Your task to perform on an android device: turn off translation in the chrome app Image 0: 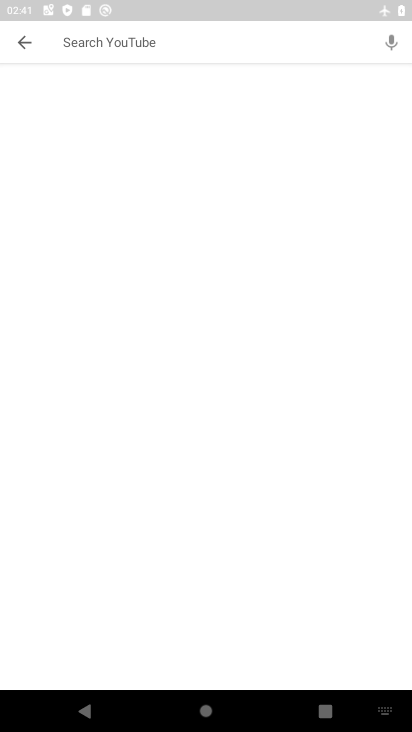
Step 0: press home button
Your task to perform on an android device: turn off translation in the chrome app Image 1: 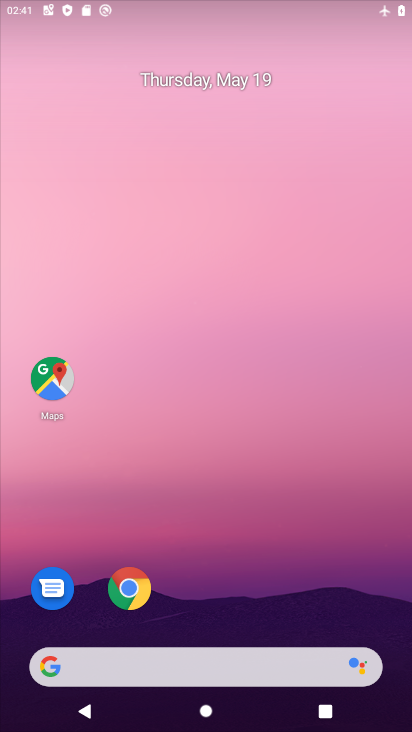
Step 1: click (129, 583)
Your task to perform on an android device: turn off translation in the chrome app Image 2: 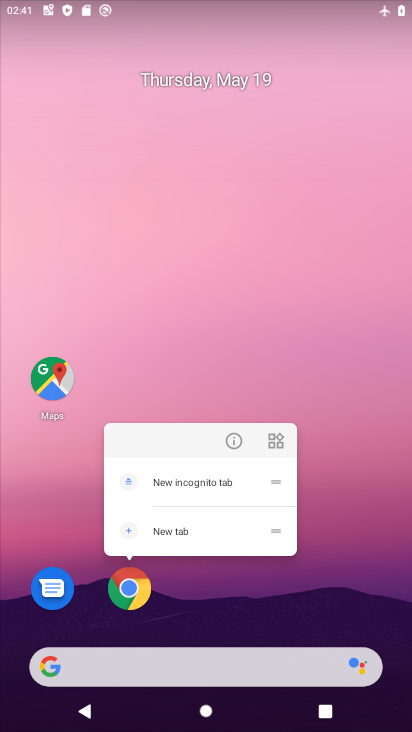
Step 2: click (129, 583)
Your task to perform on an android device: turn off translation in the chrome app Image 3: 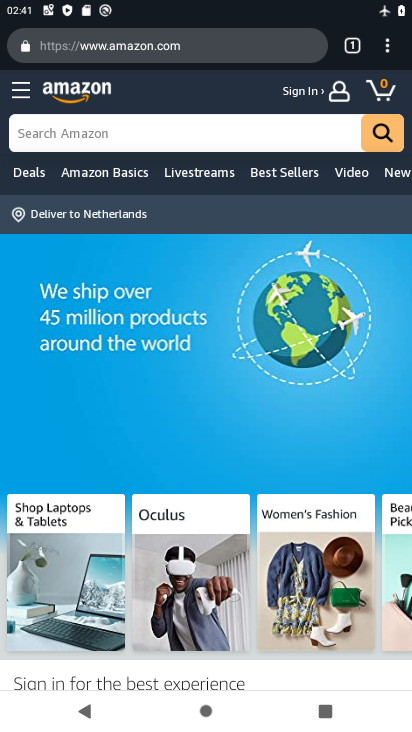
Step 3: click (383, 46)
Your task to perform on an android device: turn off translation in the chrome app Image 4: 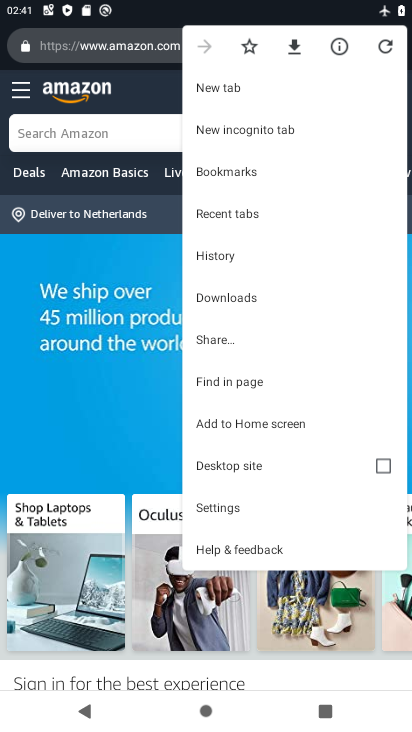
Step 4: click (235, 510)
Your task to perform on an android device: turn off translation in the chrome app Image 5: 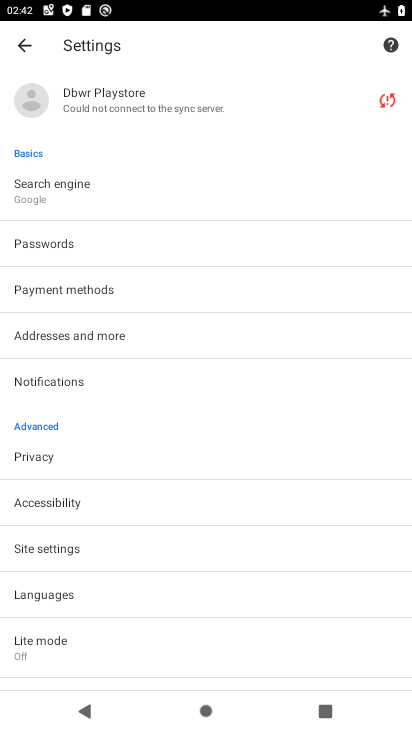
Step 5: click (60, 599)
Your task to perform on an android device: turn off translation in the chrome app Image 6: 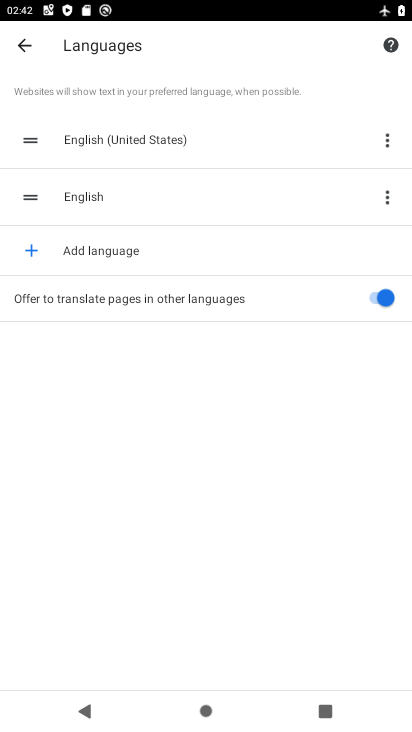
Step 6: click (389, 289)
Your task to perform on an android device: turn off translation in the chrome app Image 7: 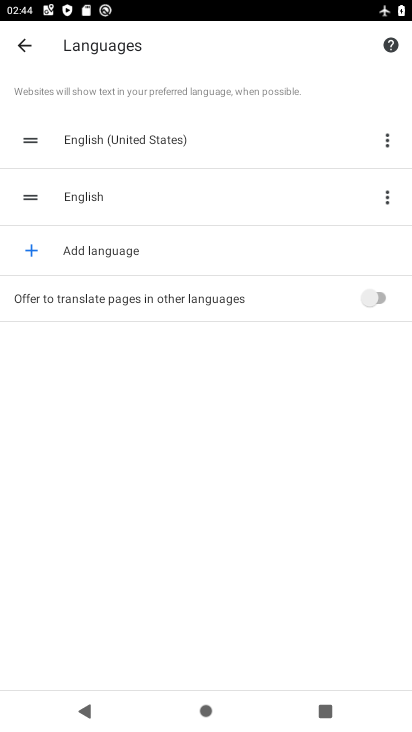
Step 7: task complete